Your task to perform on an android device: clear all cookies in the chrome app Image 0: 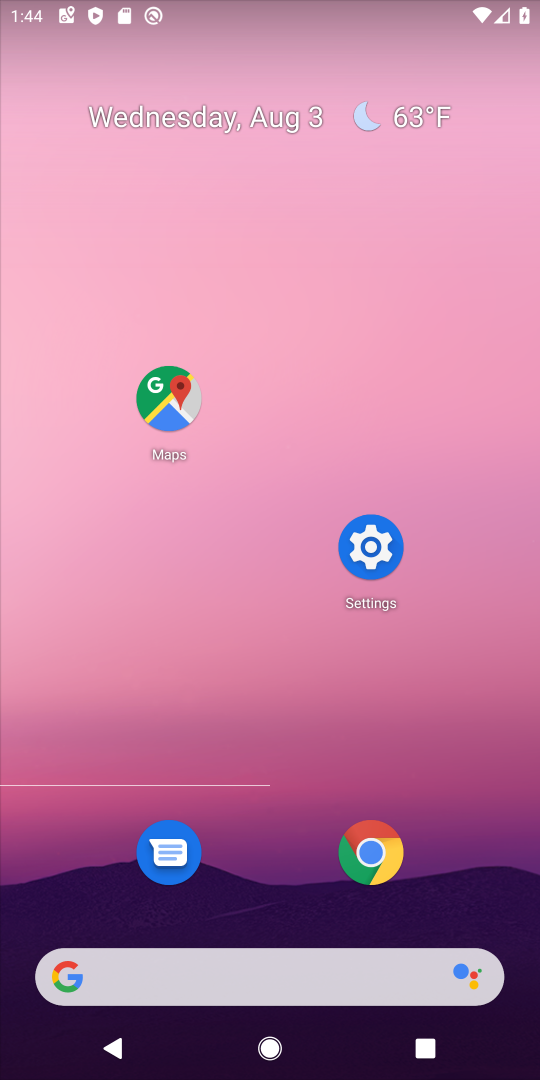
Step 0: click (375, 860)
Your task to perform on an android device: clear all cookies in the chrome app Image 1: 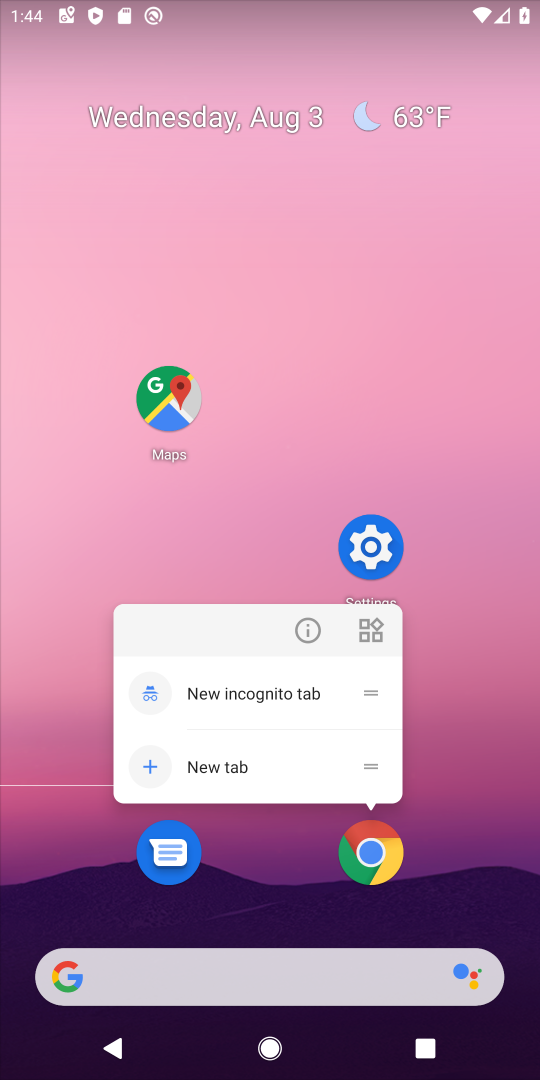
Step 1: click (375, 860)
Your task to perform on an android device: clear all cookies in the chrome app Image 2: 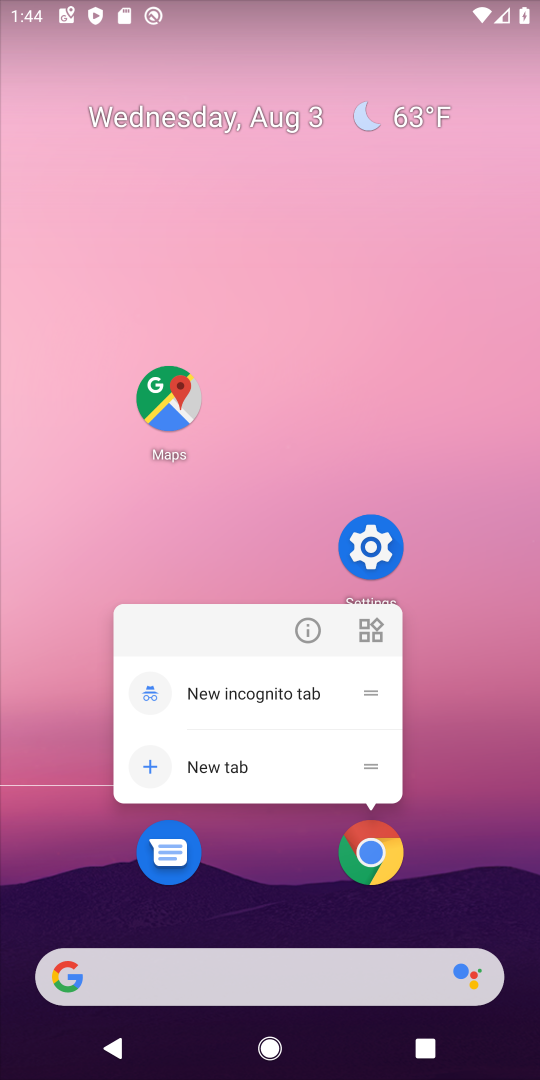
Step 2: click (375, 860)
Your task to perform on an android device: clear all cookies in the chrome app Image 3: 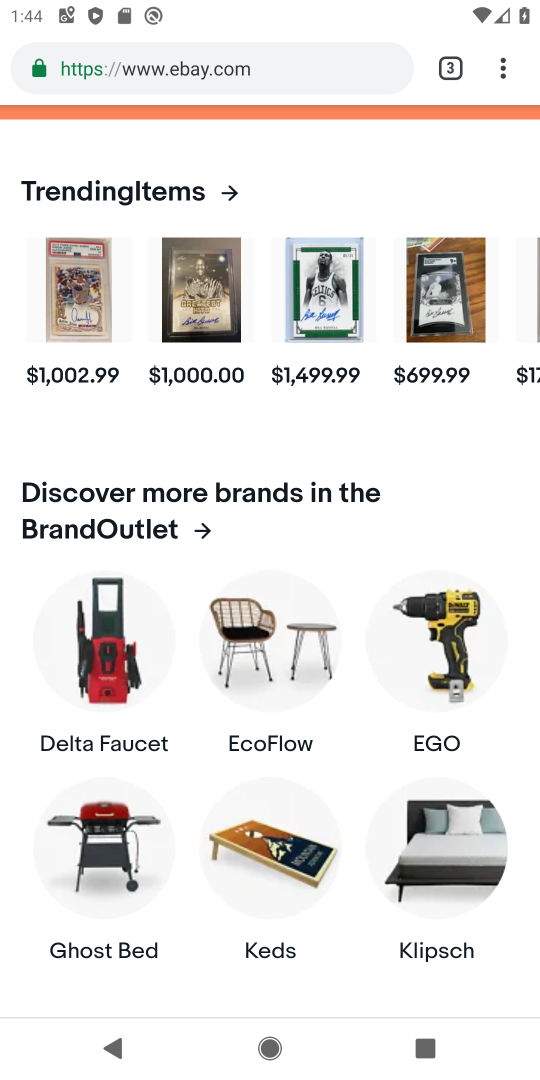
Step 3: drag from (501, 74) to (287, 908)
Your task to perform on an android device: clear all cookies in the chrome app Image 4: 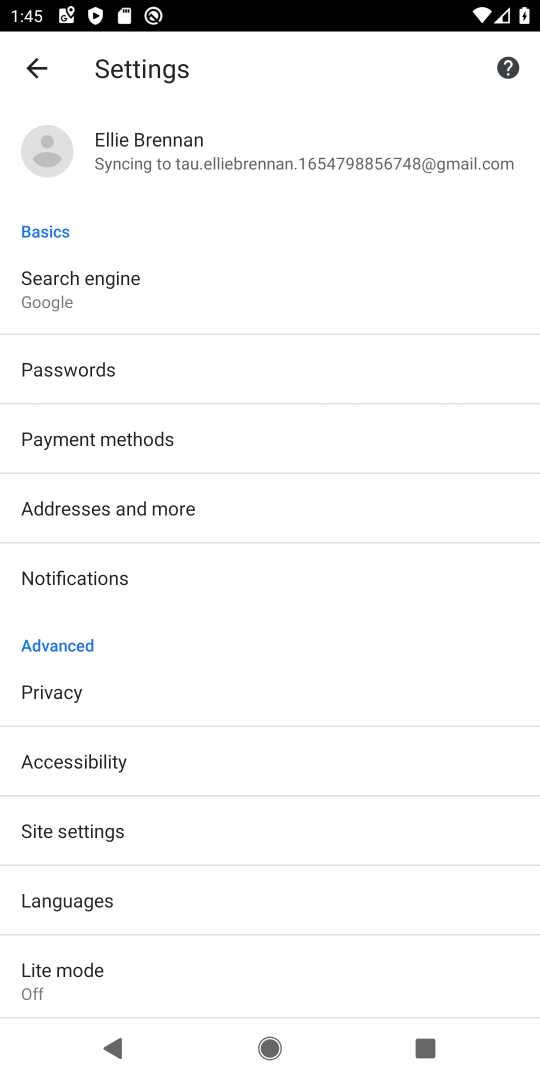
Step 4: click (64, 688)
Your task to perform on an android device: clear all cookies in the chrome app Image 5: 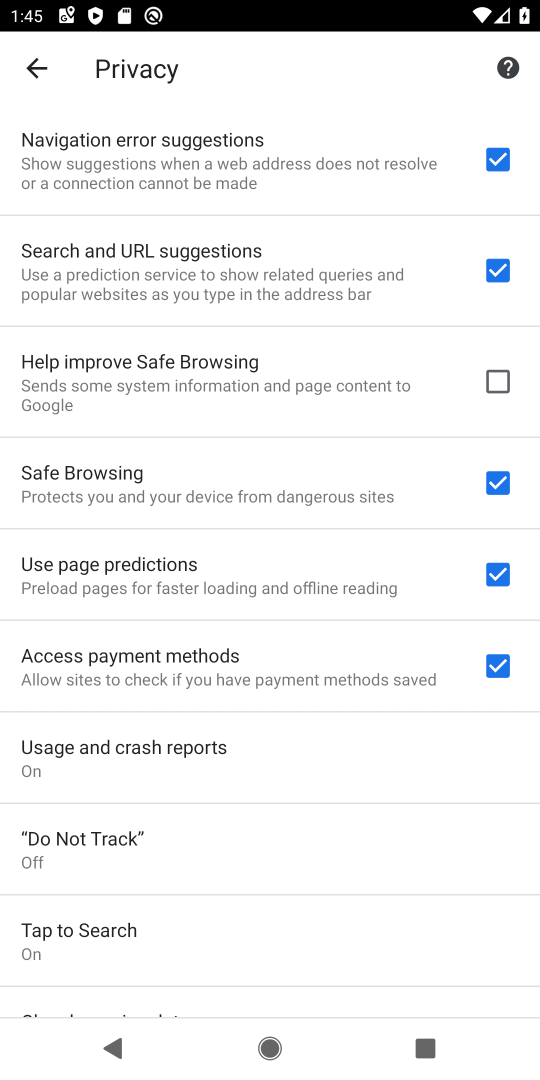
Step 5: drag from (239, 787) to (381, 131)
Your task to perform on an android device: clear all cookies in the chrome app Image 6: 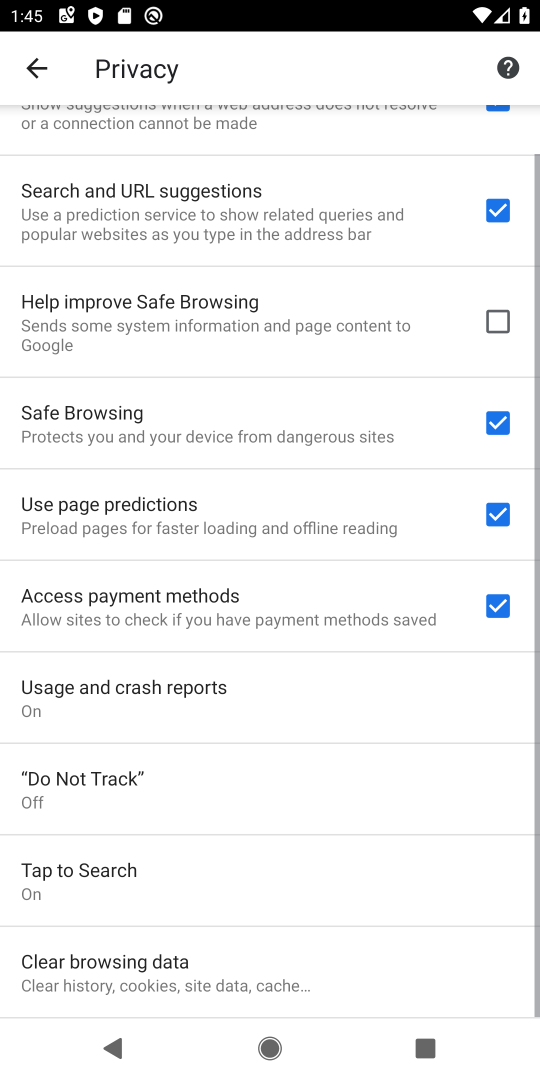
Step 6: click (168, 960)
Your task to perform on an android device: clear all cookies in the chrome app Image 7: 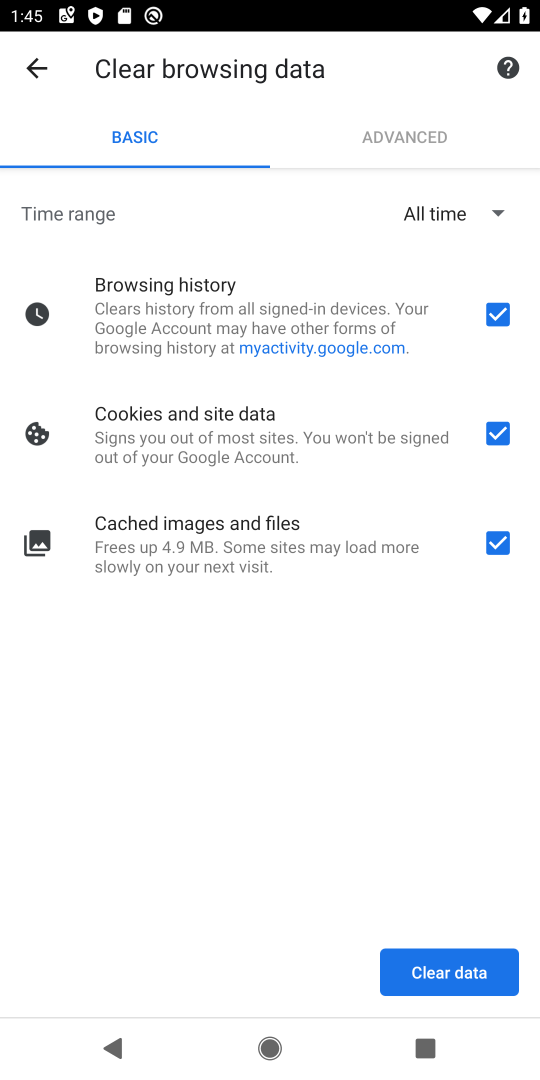
Step 7: click (497, 310)
Your task to perform on an android device: clear all cookies in the chrome app Image 8: 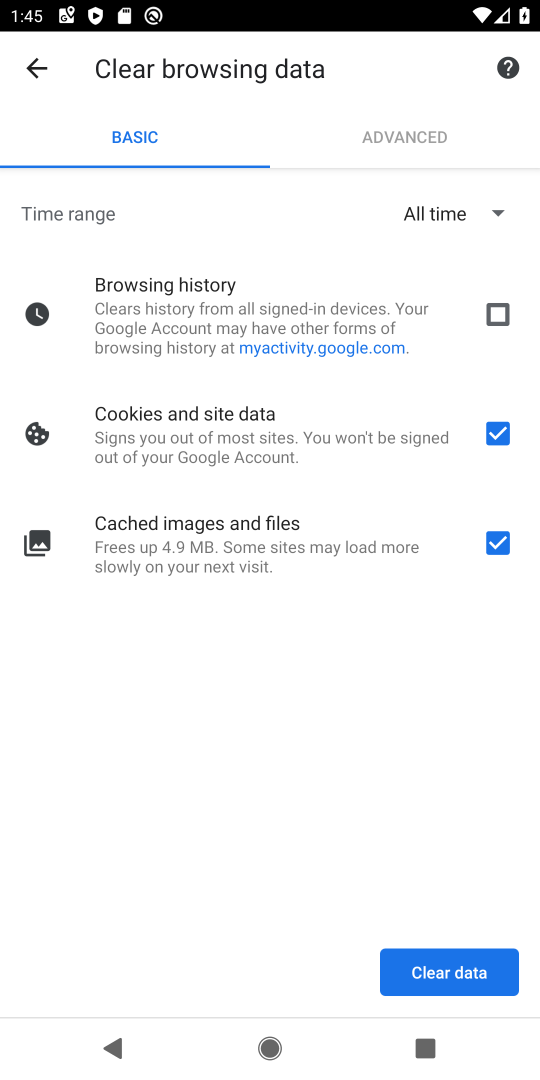
Step 8: click (490, 531)
Your task to perform on an android device: clear all cookies in the chrome app Image 9: 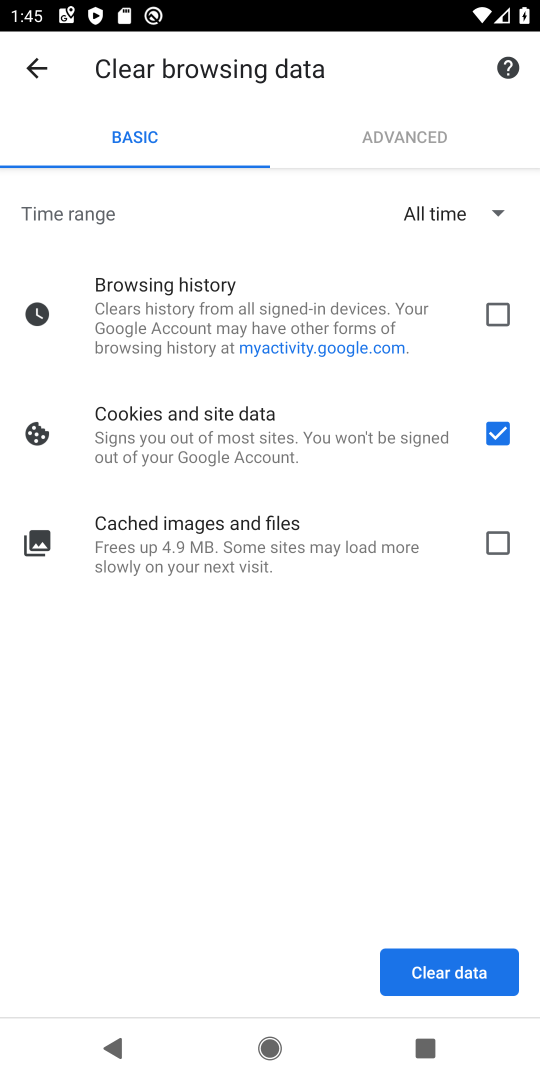
Step 9: click (424, 977)
Your task to perform on an android device: clear all cookies in the chrome app Image 10: 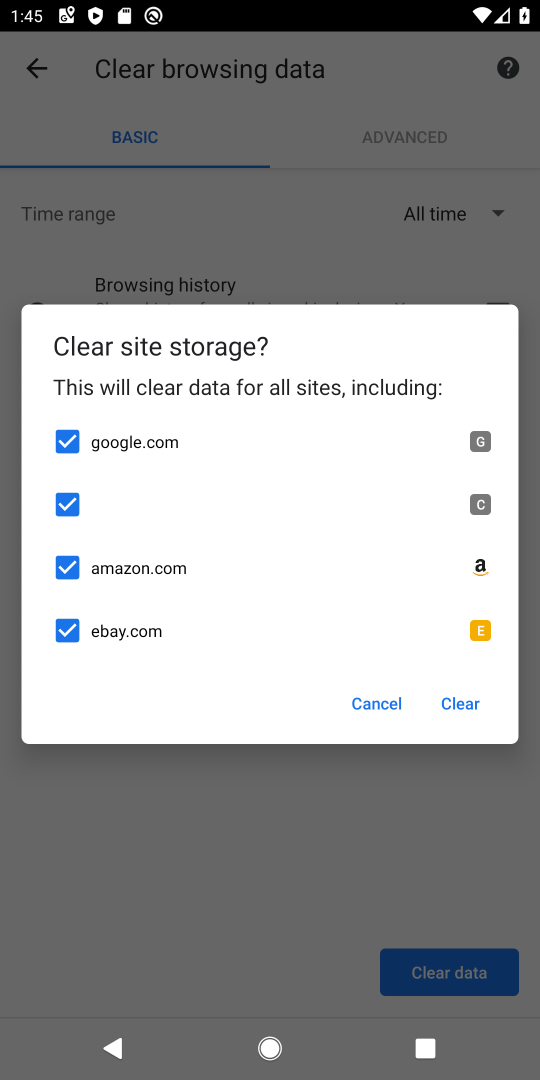
Step 10: click (449, 700)
Your task to perform on an android device: clear all cookies in the chrome app Image 11: 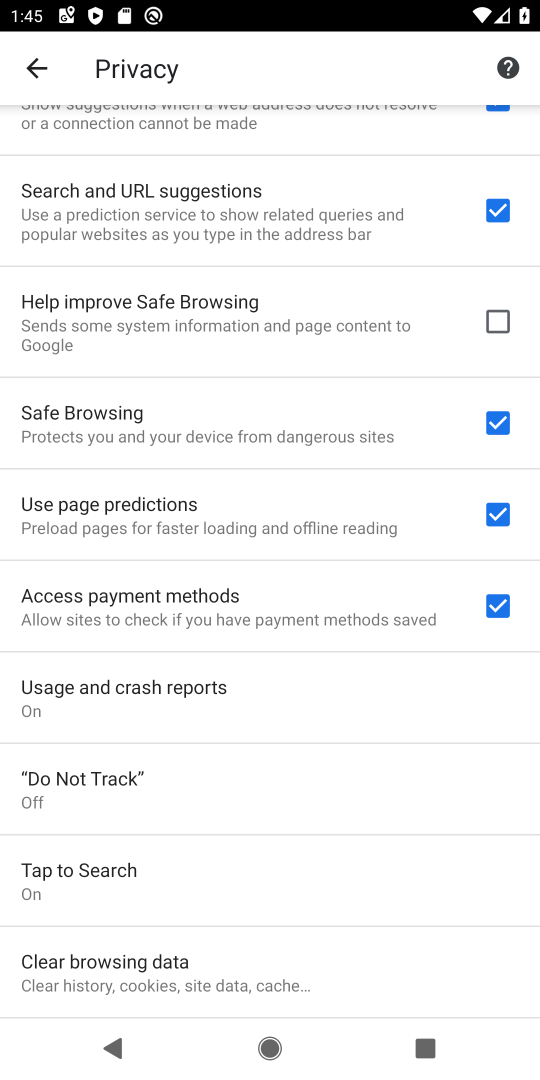
Step 11: task complete